Your task to perform on an android device: change alarm snooze length Image 0: 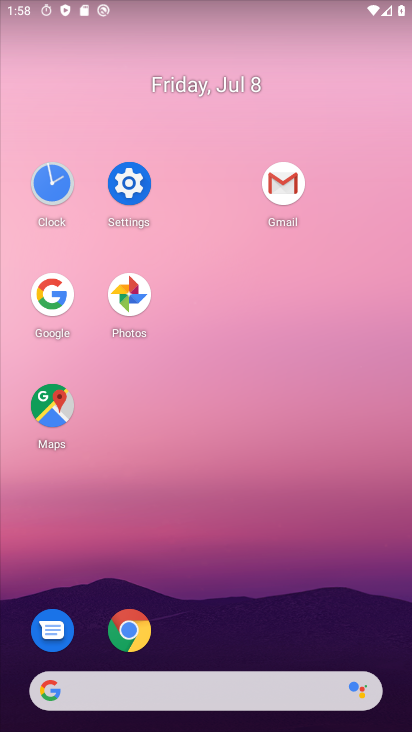
Step 0: click (63, 177)
Your task to perform on an android device: change alarm snooze length Image 1: 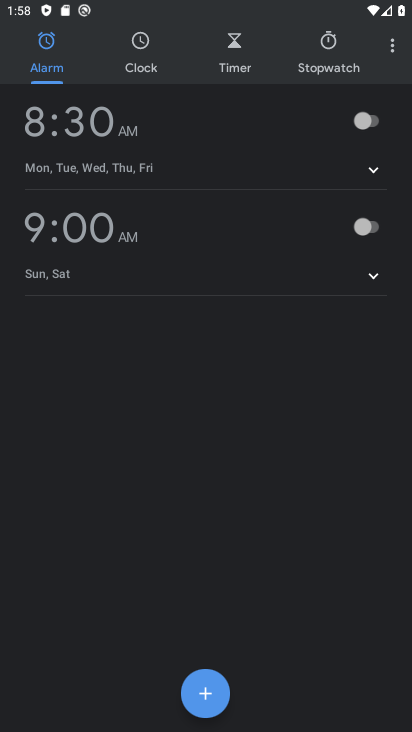
Step 1: click (404, 45)
Your task to perform on an android device: change alarm snooze length Image 2: 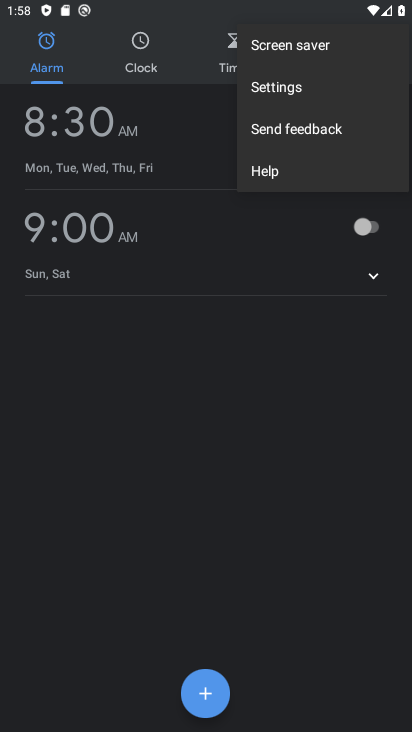
Step 2: click (254, 88)
Your task to perform on an android device: change alarm snooze length Image 3: 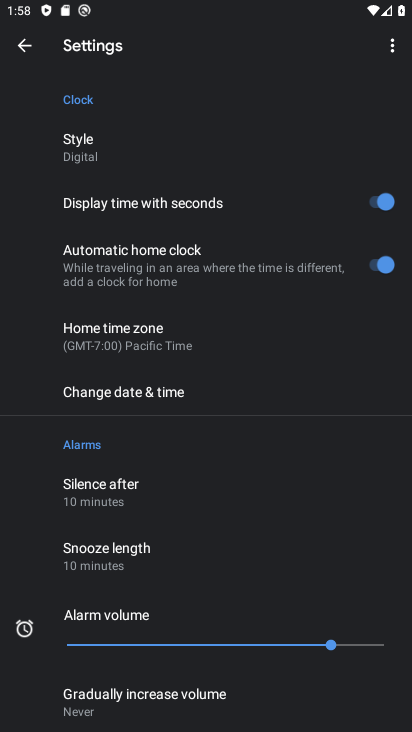
Step 3: click (220, 543)
Your task to perform on an android device: change alarm snooze length Image 4: 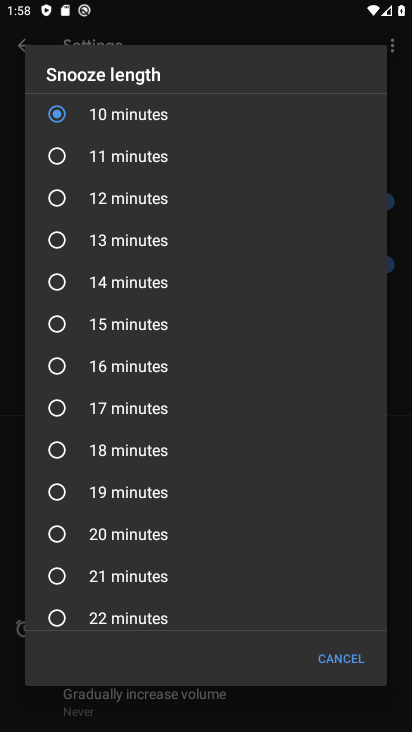
Step 4: click (115, 167)
Your task to perform on an android device: change alarm snooze length Image 5: 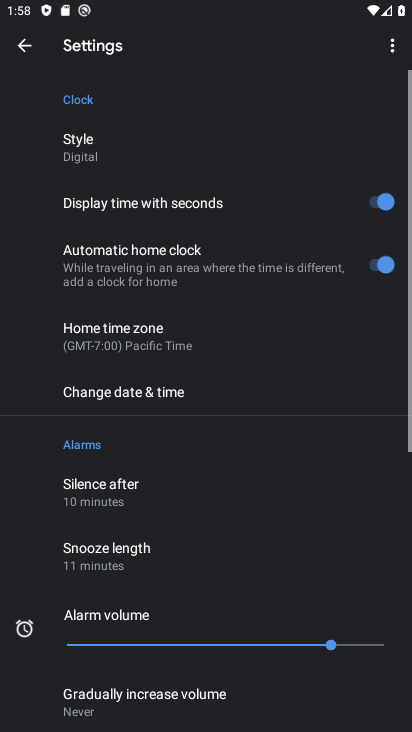
Step 5: task complete